Your task to perform on an android device: read, delete, or share a saved page in the chrome app Image 0: 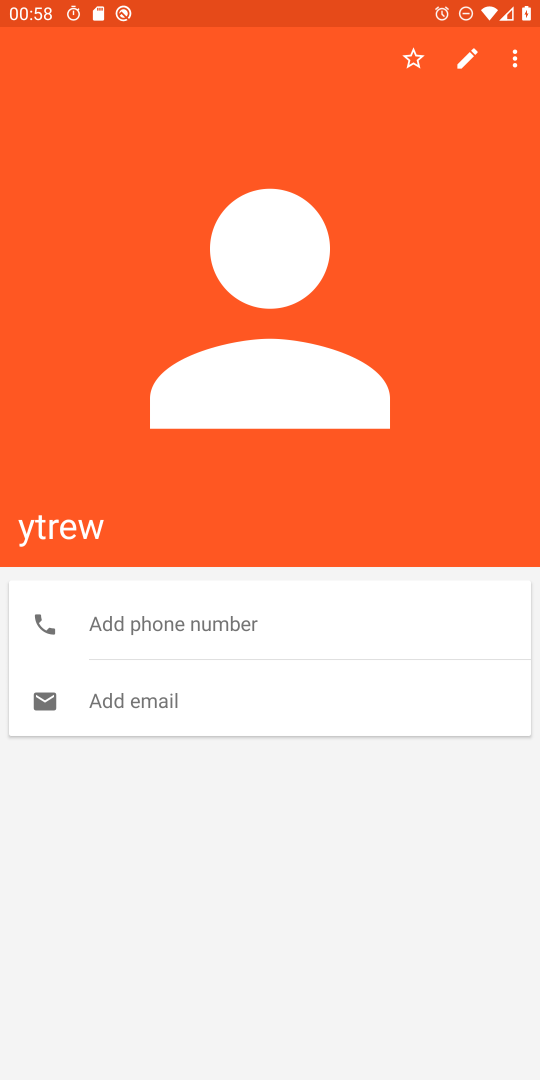
Step 0: press home button
Your task to perform on an android device: read, delete, or share a saved page in the chrome app Image 1: 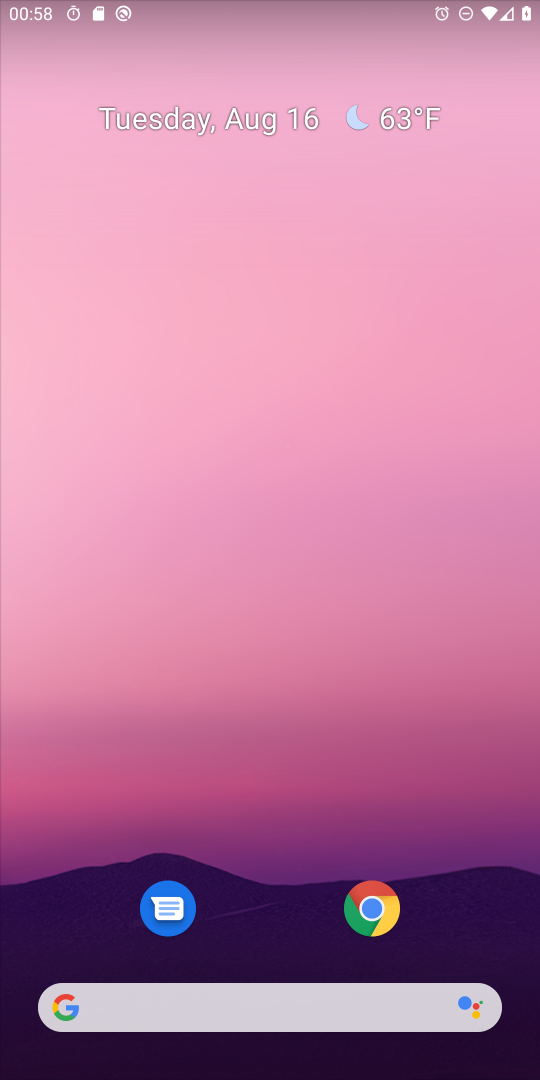
Step 1: click (380, 901)
Your task to perform on an android device: read, delete, or share a saved page in the chrome app Image 2: 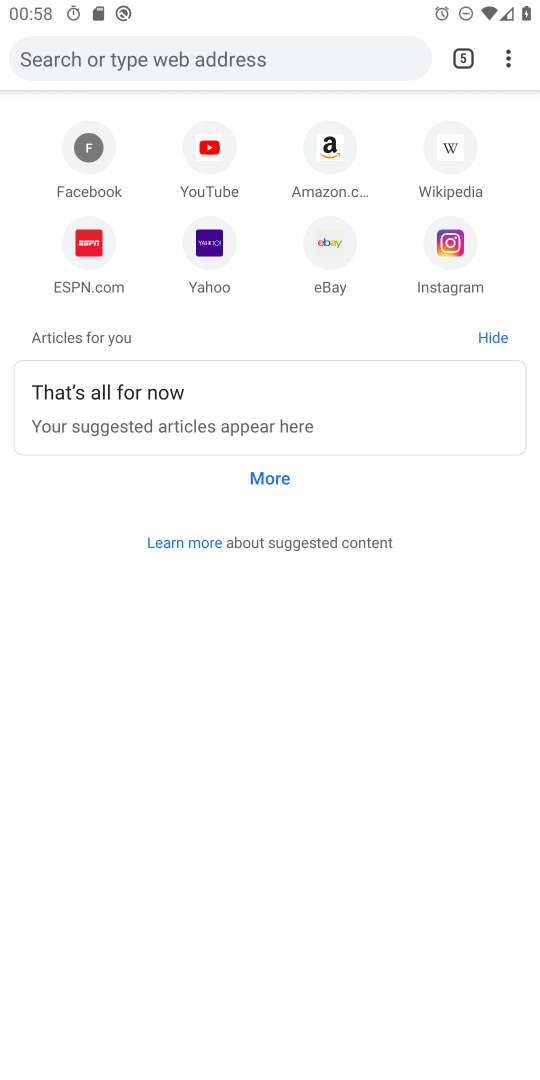
Step 2: click (519, 57)
Your task to perform on an android device: read, delete, or share a saved page in the chrome app Image 3: 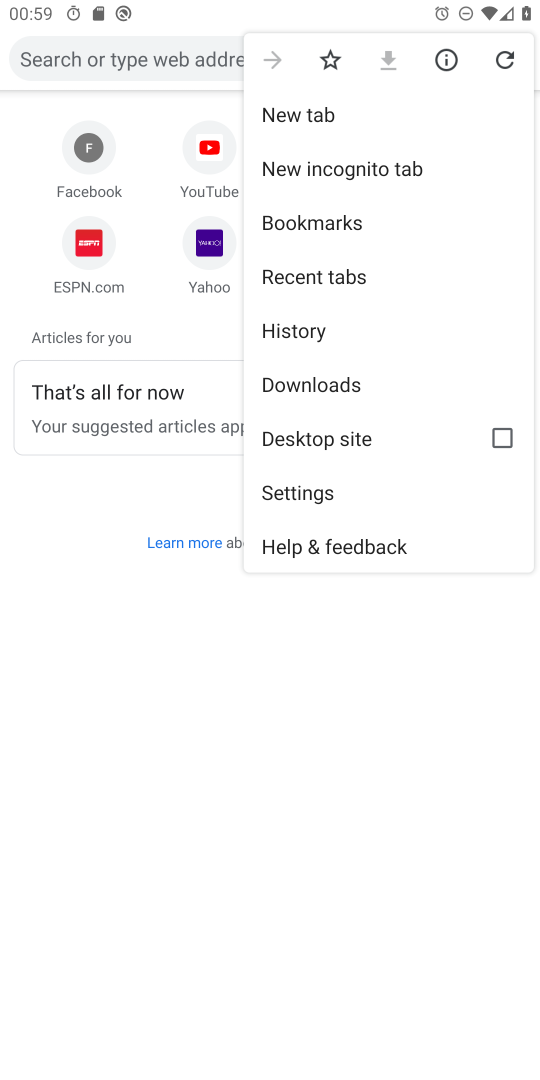
Step 3: click (362, 397)
Your task to perform on an android device: read, delete, or share a saved page in the chrome app Image 4: 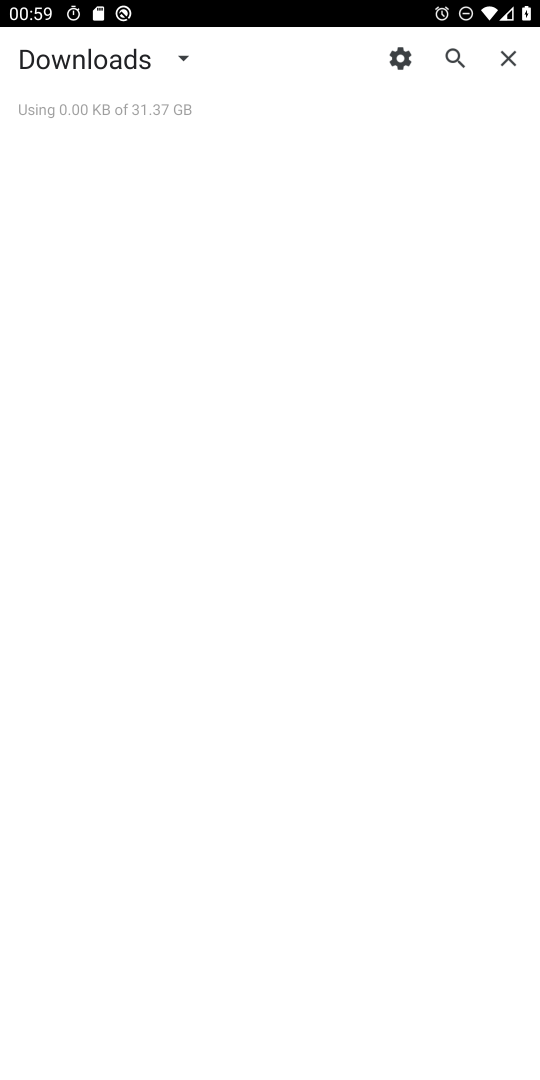
Step 4: task complete